Your task to perform on an android device: open sync settings in chrome Image 0: 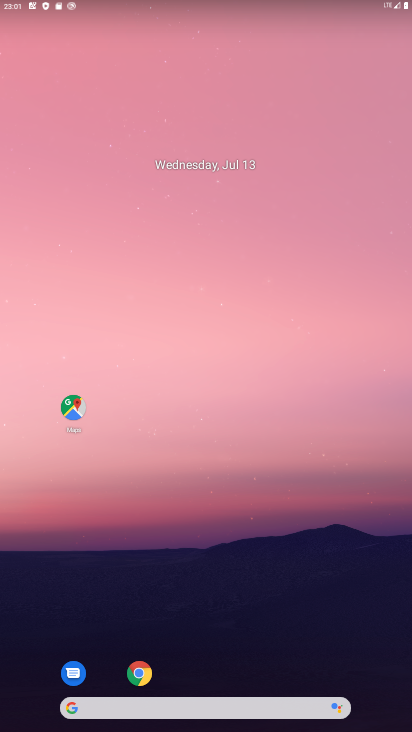
Step 0: click (255, 254)
Your task to perform on an android device: open sync settings in chrome Image 1: 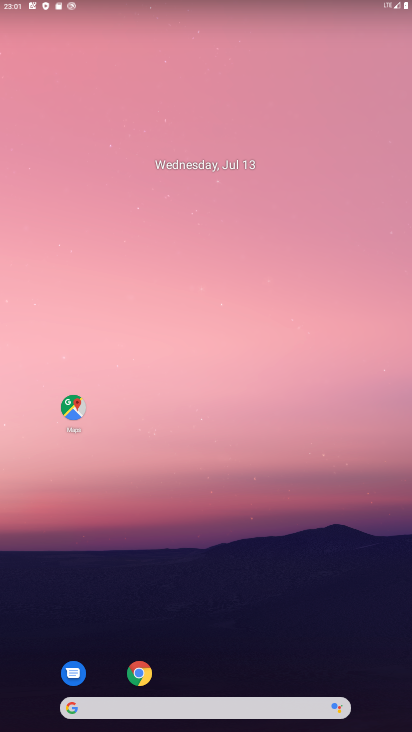
Step 1: press home button
Your task to perform on an android device: open sync settings in chrome Image 2: 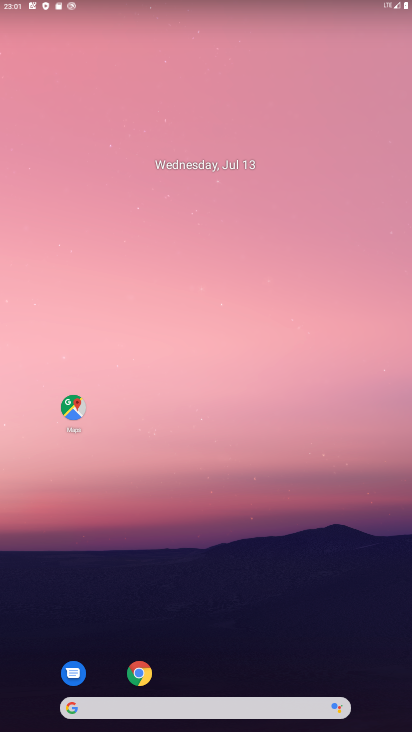
Step 2: press home button
Your task to perform on an android device: open sync settings in chrome Image 3: 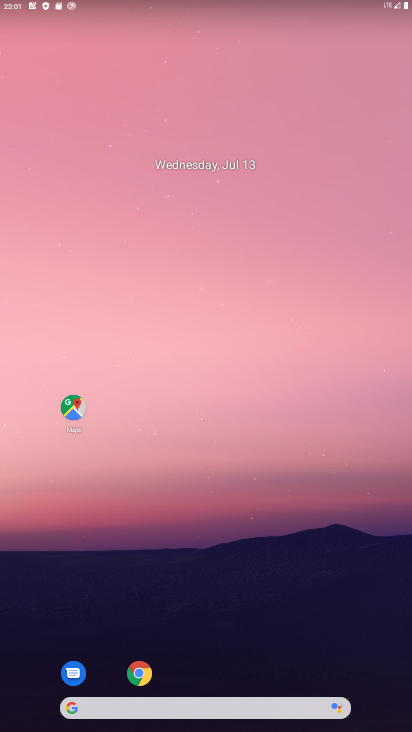
Step 3: drag from (206, 605) to (284, 31)
Your task to perform on an android device: open sync settings in chrome Image 4: 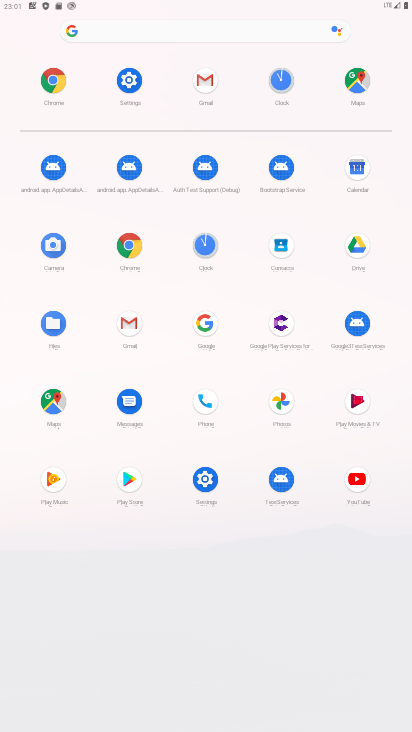
Step 4: click (131, 242)
Your task to perform on an android device: open sync settings in chrome Image 5: 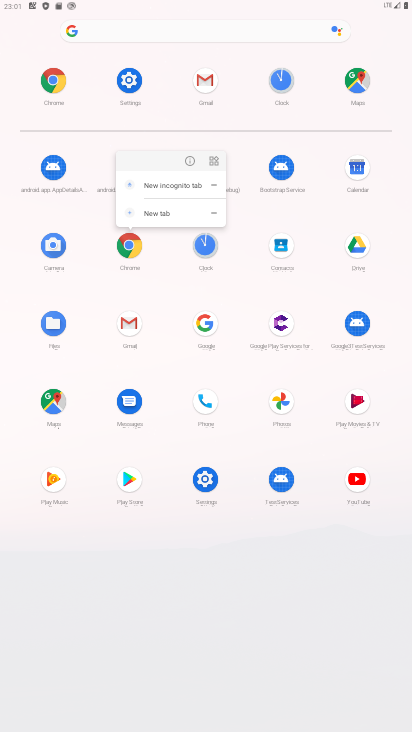
Step 5: click (192, 158)
Your task to perform on an android device: open sync settings in chrome Image 6: 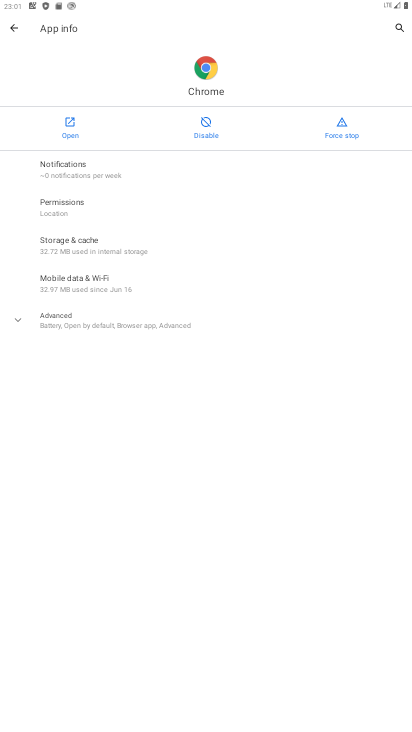
Step 6: click (75, 129)
Your task to perform on an android device: open sync settings in chrome Image 7: 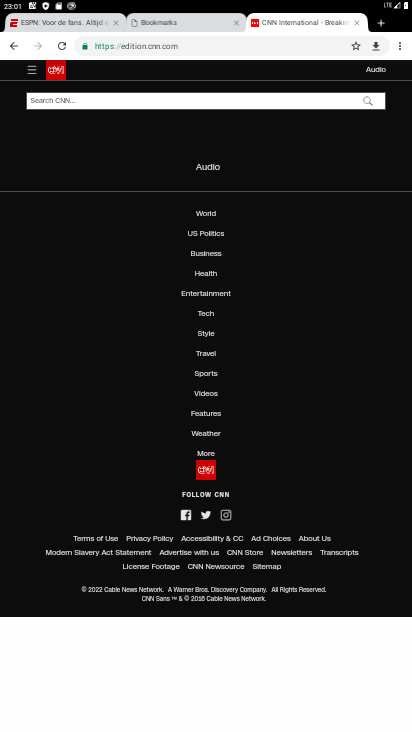
Step 7: drag from (197, 206) to (256, 492)
Your task to perform on an android device: open sync settings in chrome Image 8: 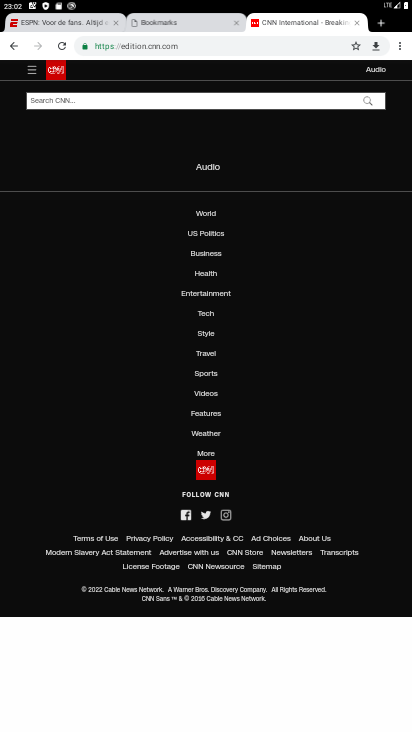
Step 8: click (382, 28)
Your task to perform on an android device: open sync settings in chrome Image 9: 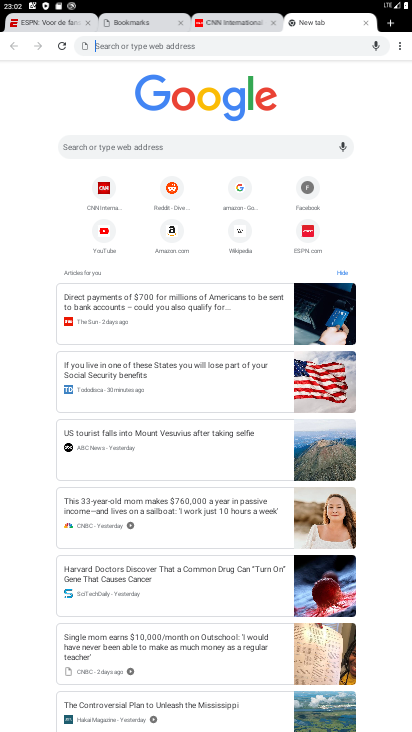
Step 9: click (138, 43)
Your task to perform on an android device: open sync settings in chrome Image 10: 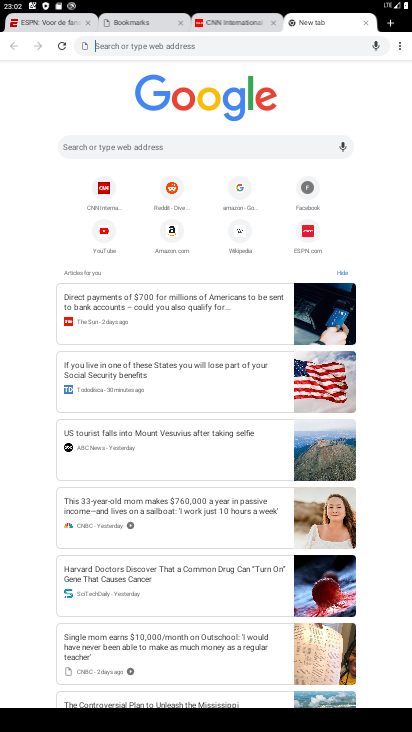
Step 10: click (400, 42)
Your task to perform on an android device: open sync settings in chrome Image 11: 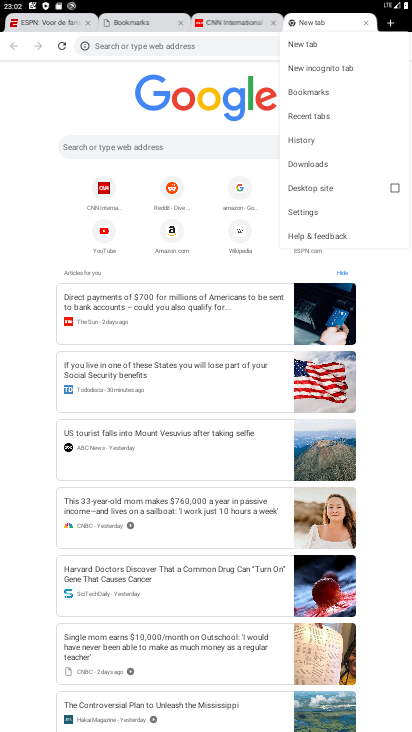
Step 11: click (308, 213)
Your task to perform on an android device: open sync settings in chrome Image 12: 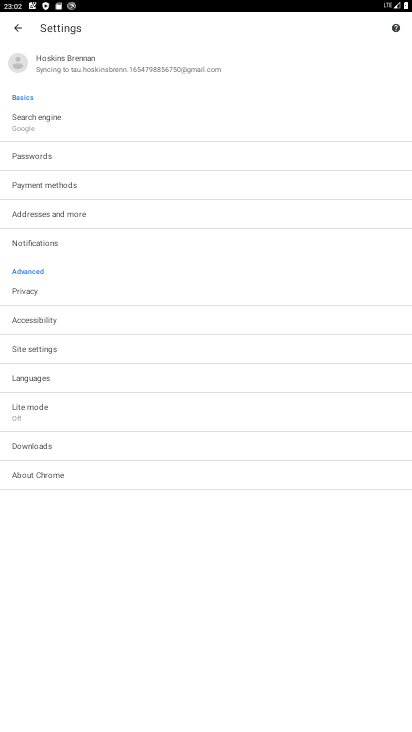
Step 12: click (74, 342)
Your task to perform on an android device: open sync settings in chrome Image 13: 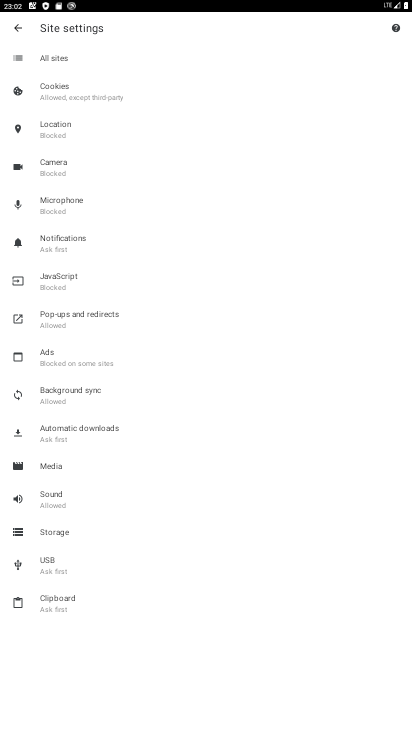
Step 13: click (84, 398)
Your task to perform on an android device: open sync settings in chrome Image 14: 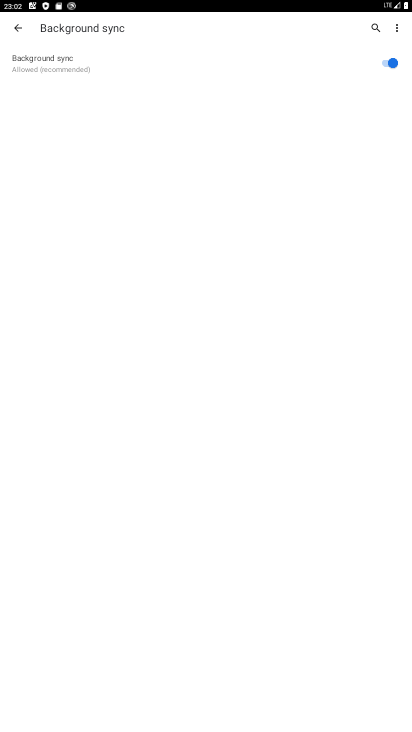
Step 14: task complete